Your task to perform on an android device: Open the phone app and click the voicemail tab. Image 0: 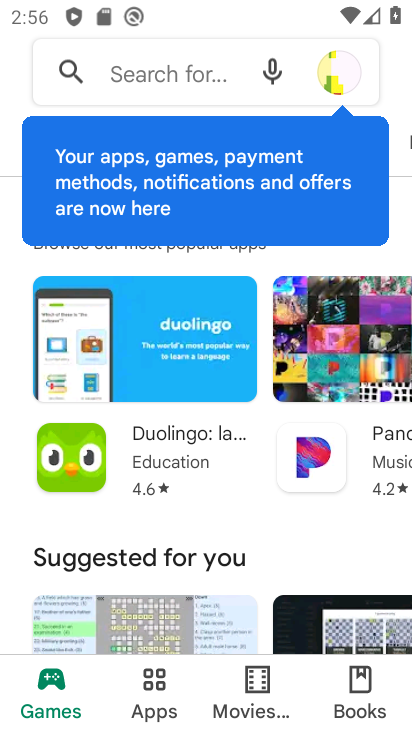
Step 0: press home button
Your task to perform on an android device: Open the phone app and click the voicemail tab. Image 1: 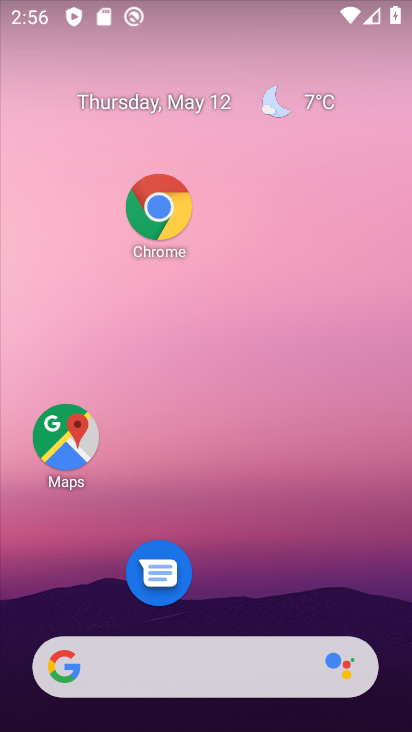
Step 1: drag from (255, 623) to (310, 85)
Your task to perform on an android device: Open the phone app and click the voicemail tab. Image 2: 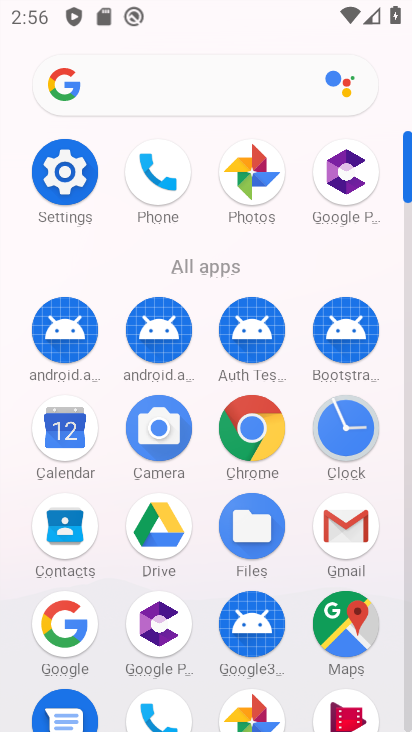
Step 2: drag from (201, 620) to (255, 282)
Your task to perform on an android device: Open the phone app and click the voicemail tab. Image 3: 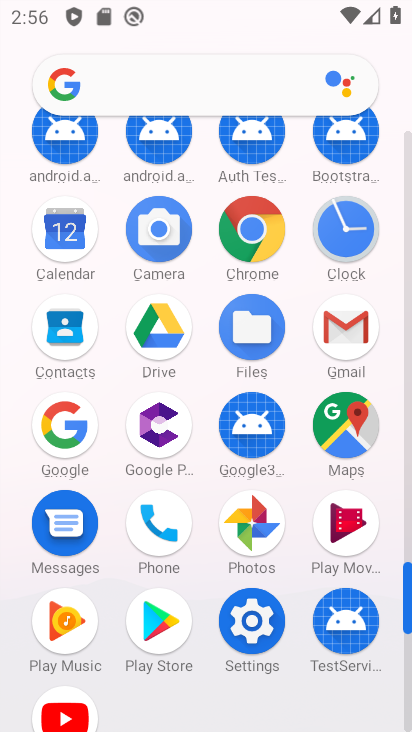
Step 3: click (163, 523)
Your task to perform on an android device: Open the phone app and click the voicemail tab. Image 4: 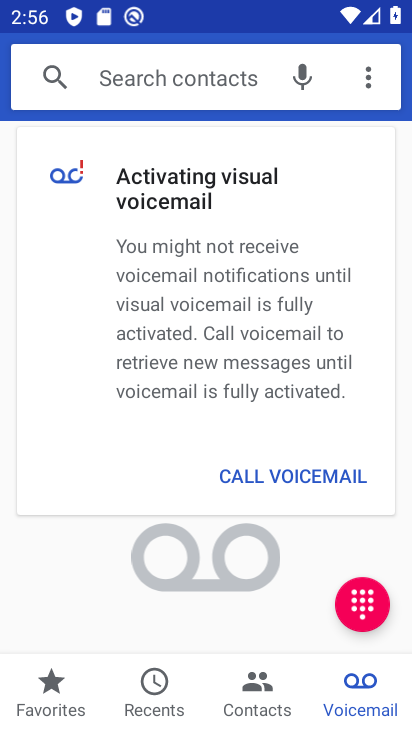
Step 4: task complete